Your task to perform on an android device: find photos in the google photos app Image 0: 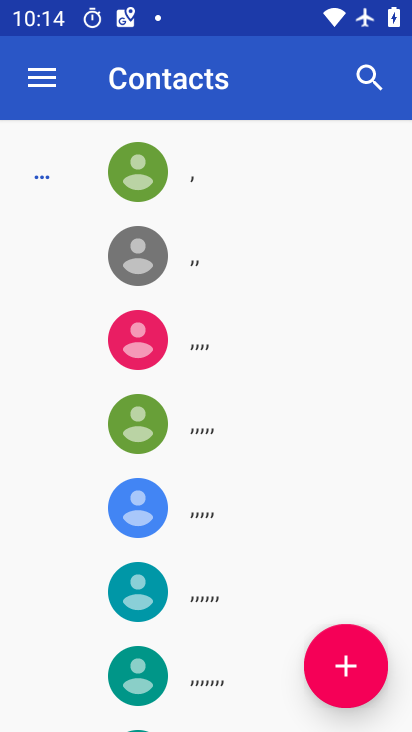
Step 0: press home button
Your task to perform on an android device: find photos in the google photos app Image 1: 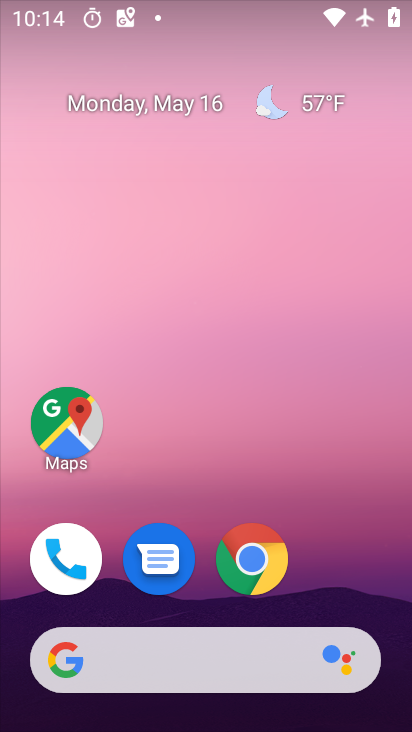
Step 1: drag from (337, 548) to (374, 94)
Your task to perform on an android device: find photos in the google photos app Image 2: 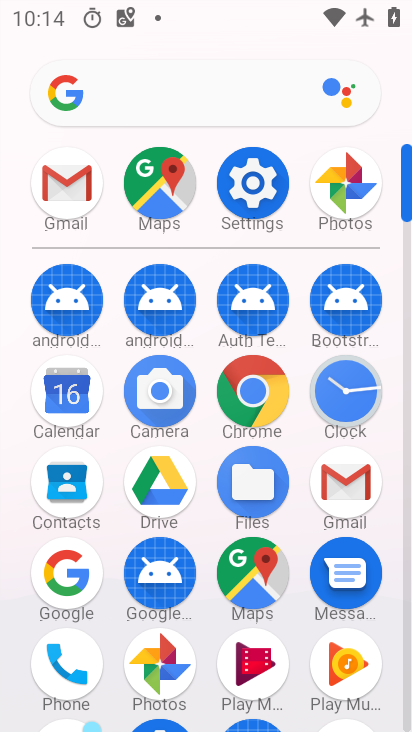
Step 2: click (169, 666)
Your task to perform on an android device: find photos in the google photos app Image 3: 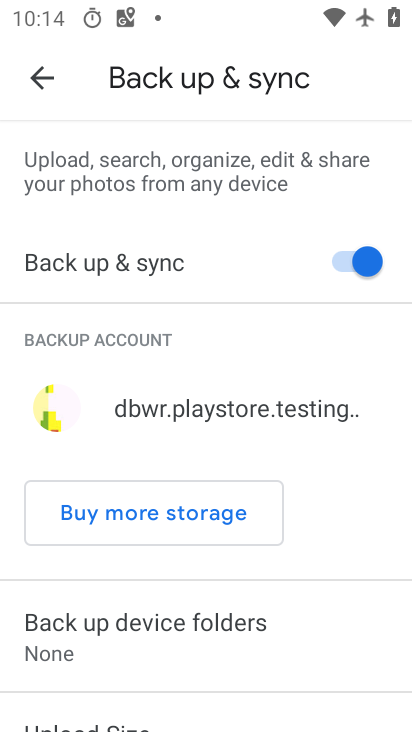
Step 3: click (42, 79)
Your task to perform on an android device: find photos in the google photos app Image 4: 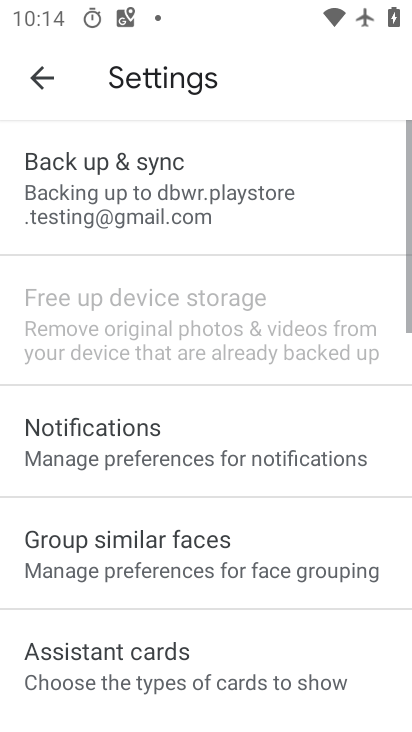
Step 4: click (42, 79)
Your task to perform on an android device: find photos in the google photos app Image 5: 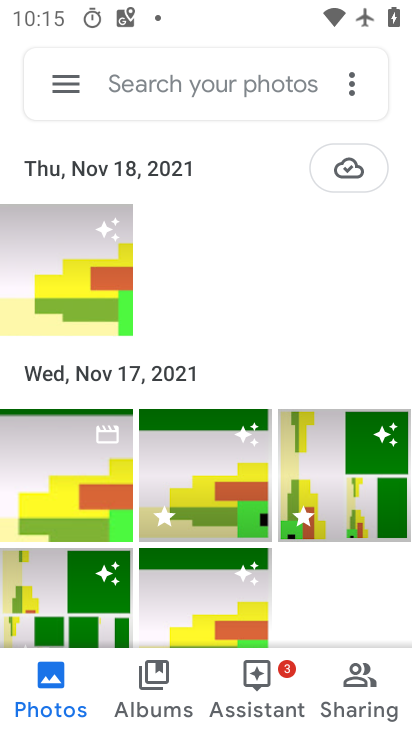
Step 5: task complete